Your task to perform on an android device: open device folders in google photos Image 0: 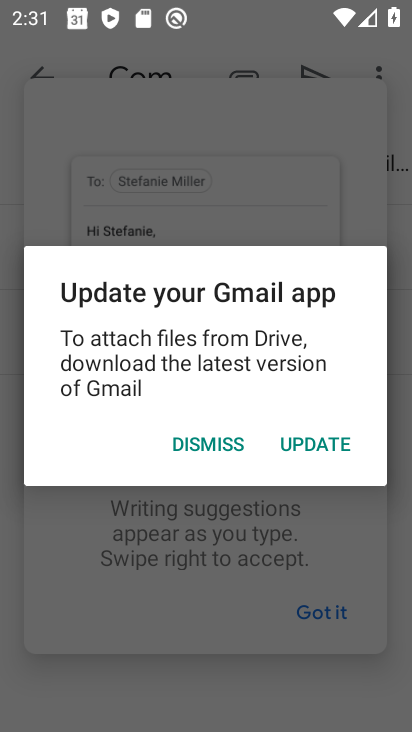
Step 0: press home button
Your task to perform on an android device: open device folders in google photos Image 1: 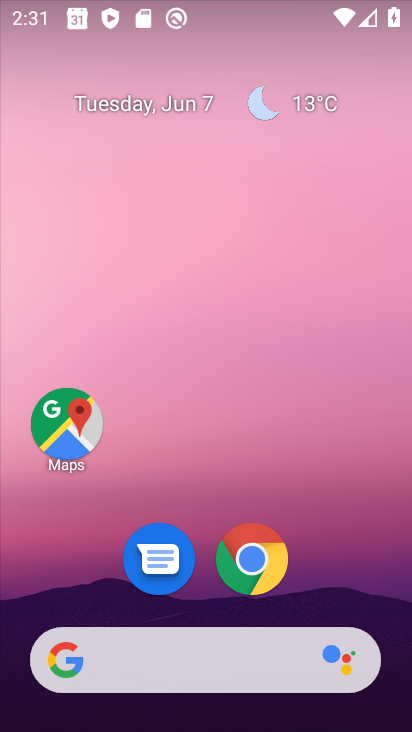
Step 1: drag from (336, 530) to (272, 116)
Your task to perform on an android device: open device folders in google photos Image 2: 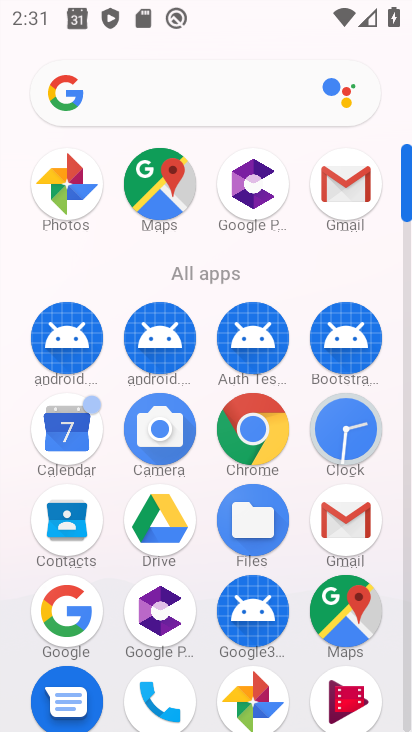
Step 2: click (69, 184)
Your task to perform on an android device: open device folders in google photos Image 3: 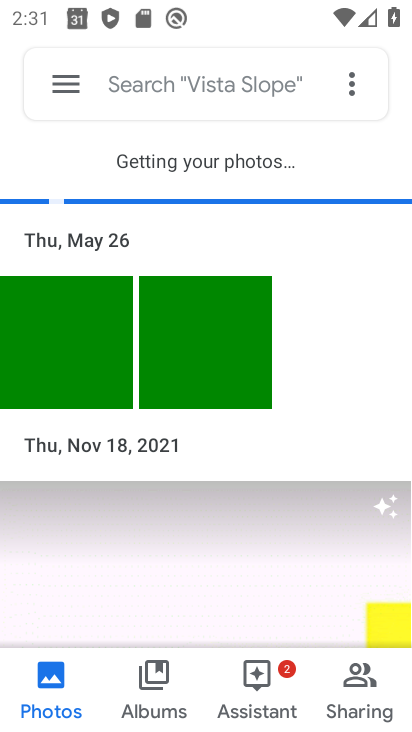
Step 3: click (67, 88)
Your task to perform on an android device: open device folders in google photos Image 4: 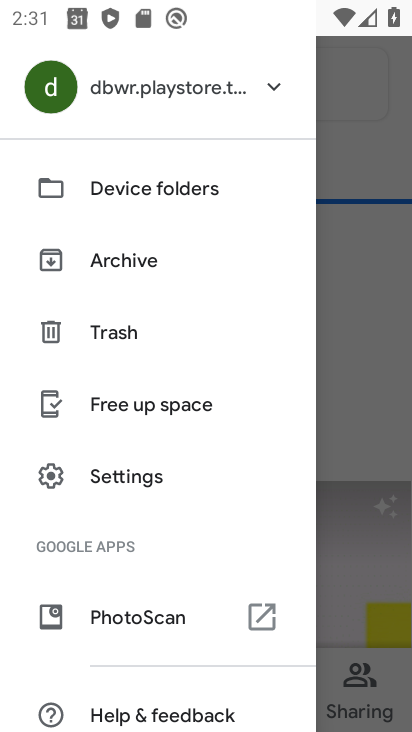
Step 4: click (121, 196)
Your task to perform on an android device: open device folders in google photos Image 5: 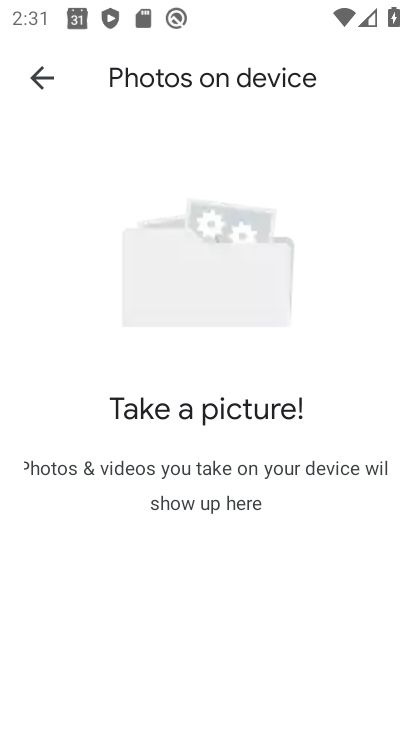
Step 5: task complete